Your task to perform on an android device: turn on location history Image 0: 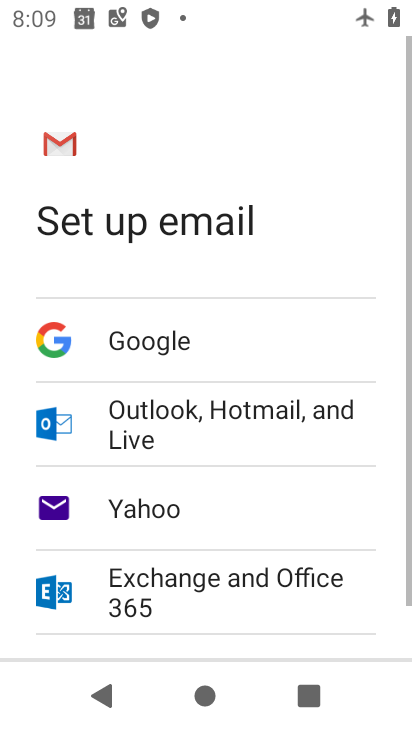
Step 0: press home button
Your task to perform on an android device: turn on location history Image 1: 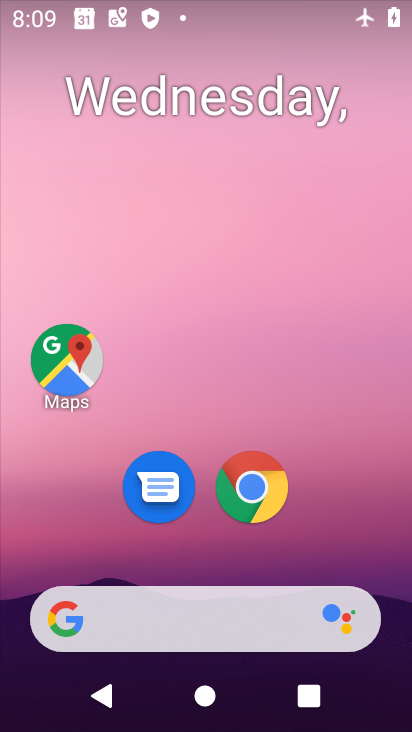
Step 1: drag from (377, 564) to (372, 315)
Your task to perform on an android device: turn on location history Image 2: 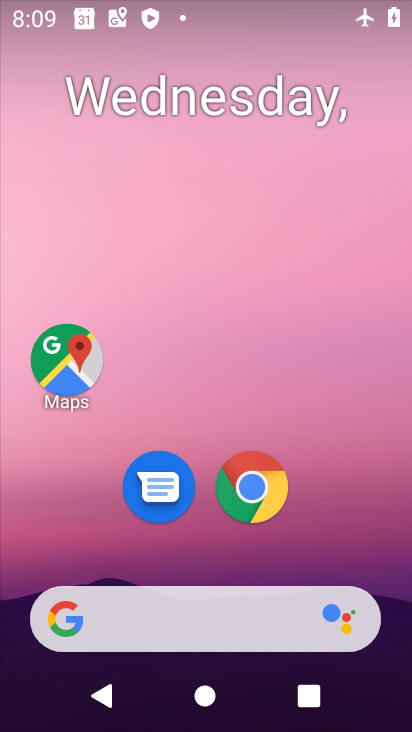
Step 2: drag from (353, 508) to (353, 169)
Your task to perform on an android device: turn on location history Image 3: 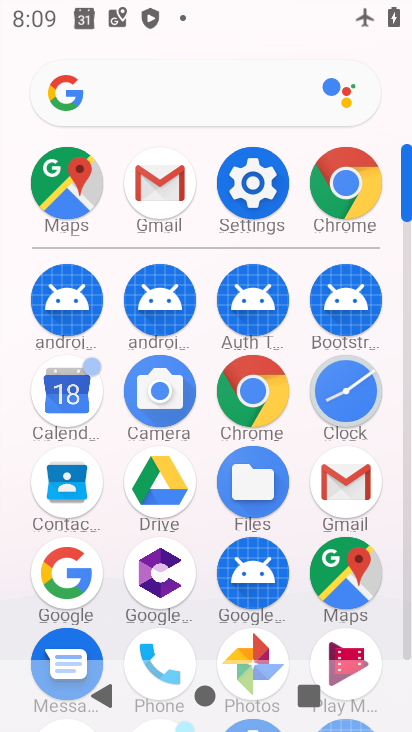
Step 3: click (274, 206)
Your task to perform on an android device: turn on location history Image 4: 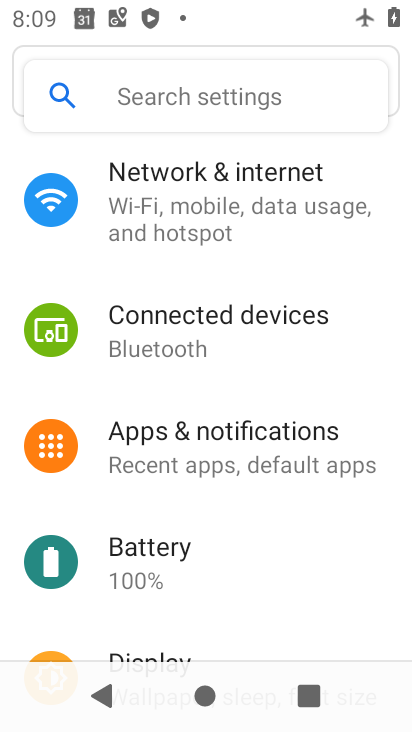
Step 4: drag from (334, 554) to (337, 423)
Your task to perform on an android device: turn on location history Image 5: 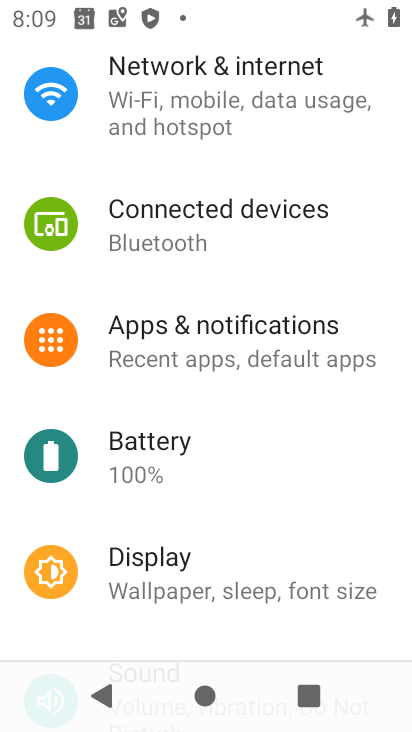
Step 5: drag from (346, 550) to (346, 441)
Your task to perform on an android device: turn on location history Image 6: 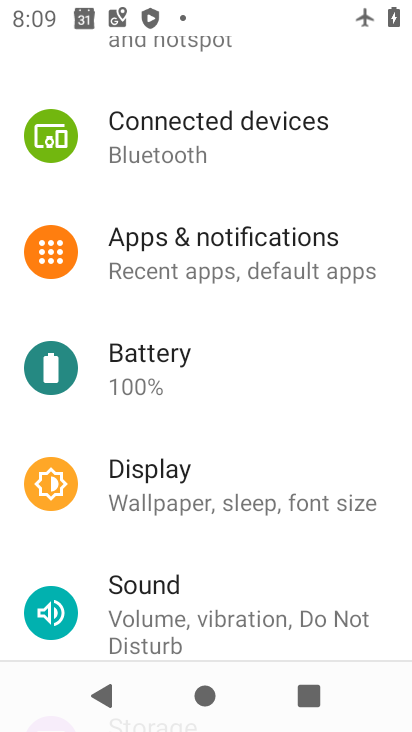
Step 6: drag from (349, 581) to (350, 493)
Your task to perform on an android device: turn on location history Image 7: 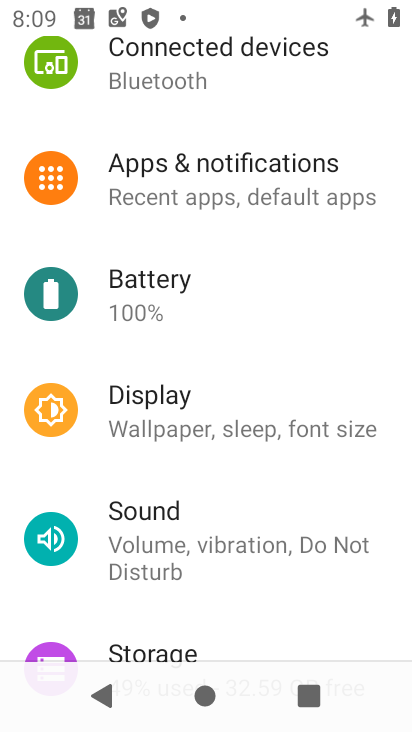
Step 7: drag from (365, 606) to (363, 540)
Your task to perform on an android device: turn on location history Image 8: 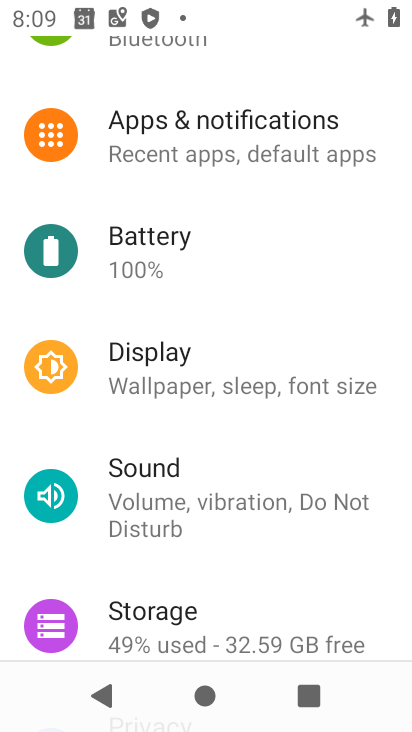
Step 8: drag from (372, 589) to (373, 516)
Your task to perform on an android device: turn on location history Image 9: 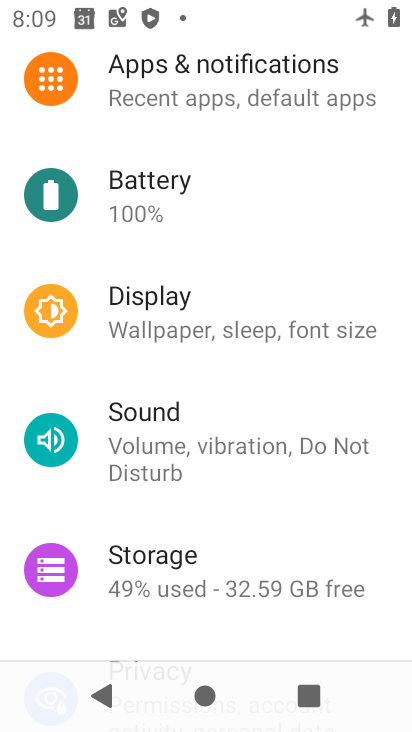
Step 9: drag from (375, 578) to (382, 491)
Your task to perform on an android device: turn on location history Image 10: 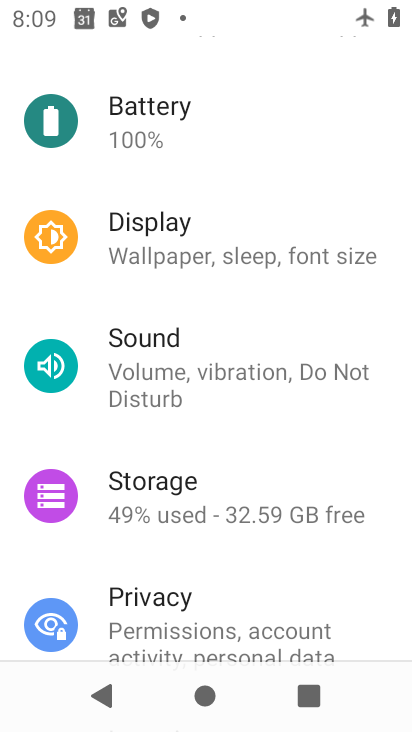
Step 10: drag from (382, 511) to (387, 430)
Your task to perform on an android device: turn on location history Image 11: 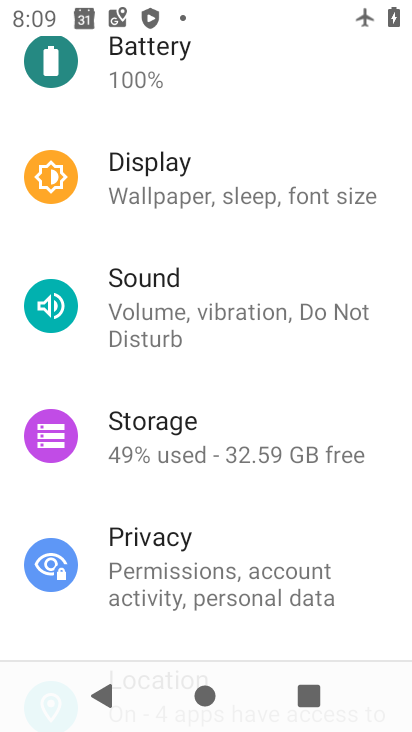
Step 11: drag from (382, 508) to (378, 419)
Your task to perform on an android device: turn on location history Image 12: 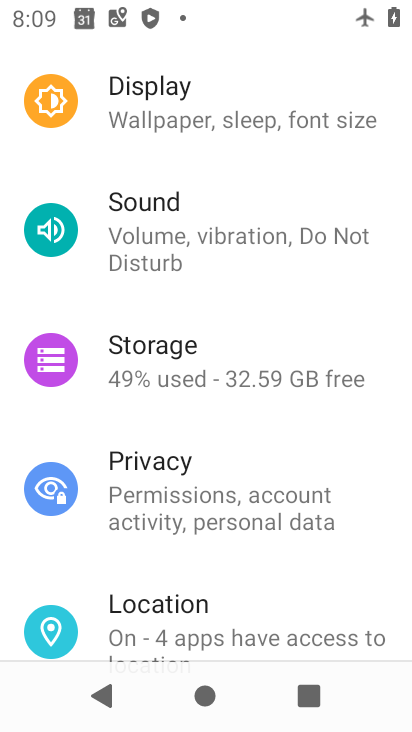
Step 12: drag from (364, 580) to (366, 473)
Your task to perform on an android device: turn on location history Image 13: 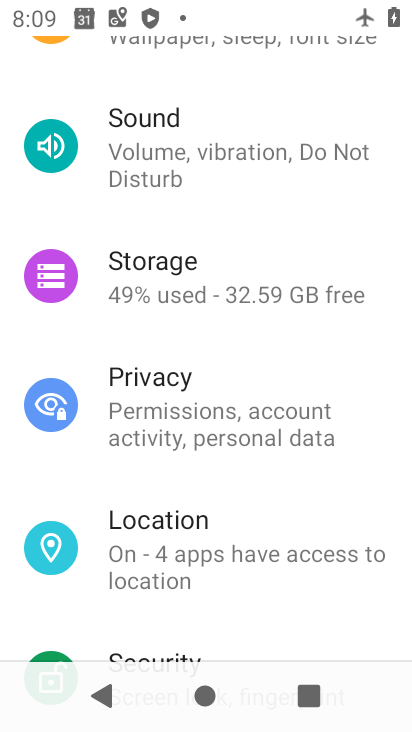
Step 13: click (313, 566)
Your task to perform on an android device: turn on location history Image 14: 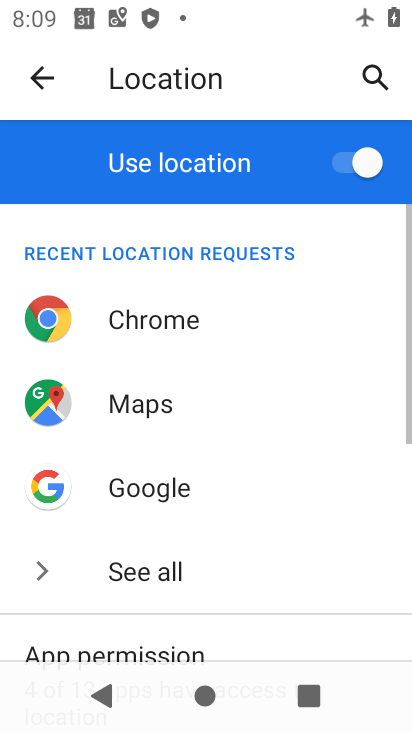
Step 14: drag from (313, 566) to (312, 463)
Your task to perform on an android device: turn on location history Image 15: 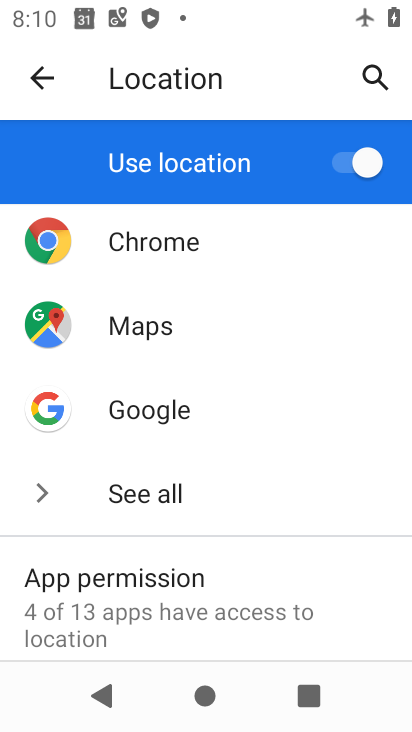
Step 15: drag from (324, 615) to (326, 521)
Your task to perform on an android device: turn on location history Image 16: 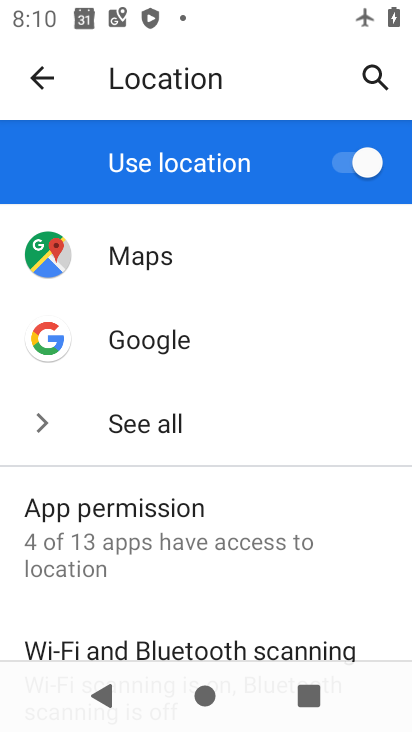
Step 16: drag from (342, 608) to (340, 528)
Your task to perform on an android device: turn on location history Image 17: 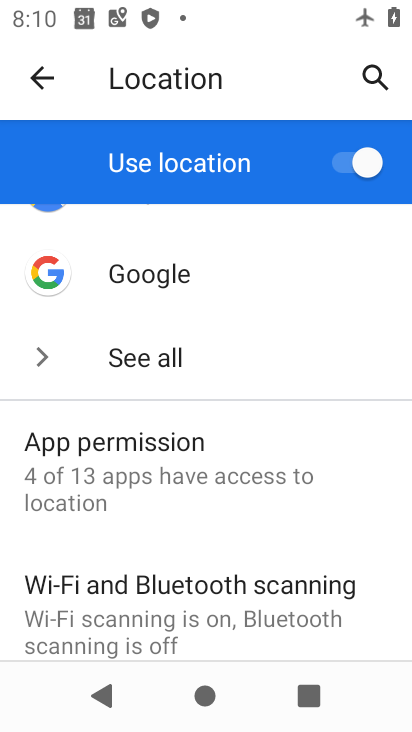
Step 17: drag from (354, 635) to (350, 550)
Your task to perform on an android device: turn on location history Image 18: 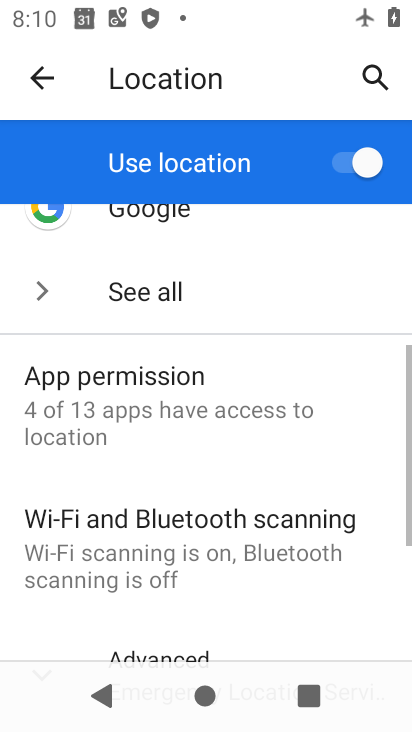
Step 18: drag from (354, 626) to (350, 513)
Your task to perform on an android device: turn on location history Image 19: 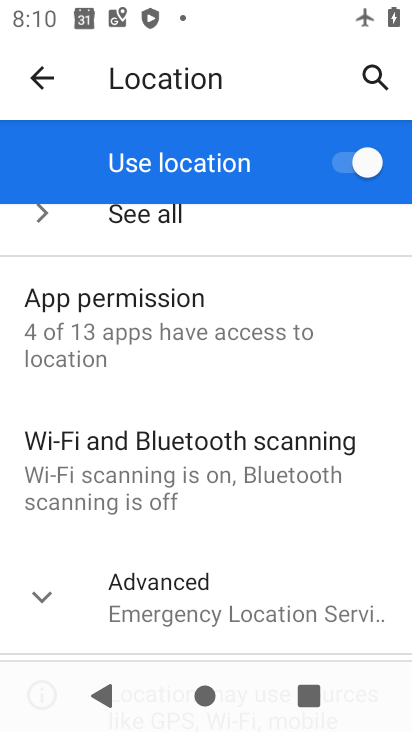
Step 19: drag from (357, 632) to (354, 508)
Your task to perform on an android device: turn on location history Image 20: 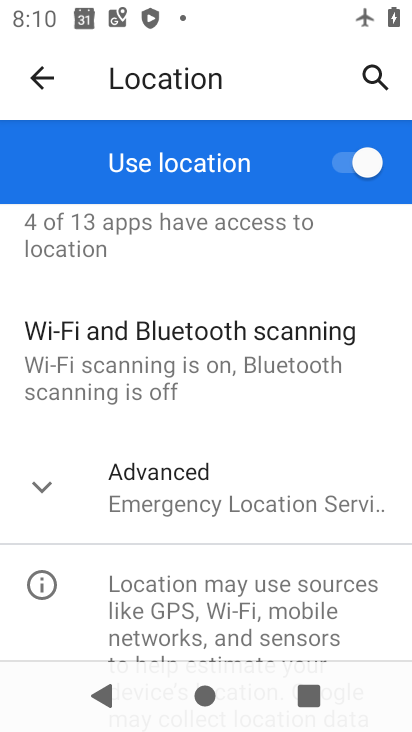
Step 20: click (303, 514)
Your task to perform on an android device: turn on location history Image 21: 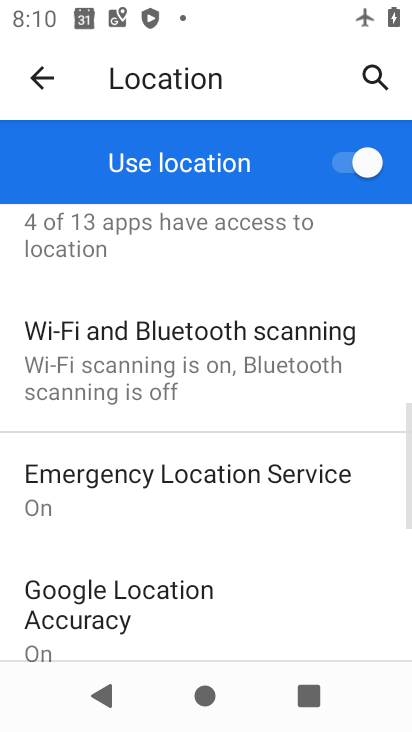
Step 21: drag from (305, 608) to (315, 488)
Your task to perform on an android device: turn on location history Image 22: 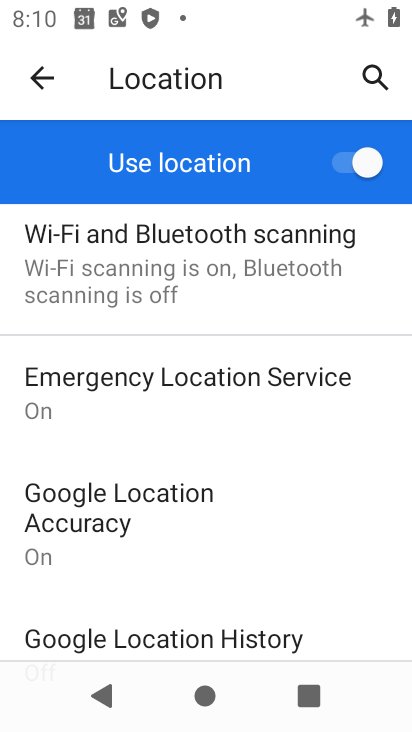
Step 22: drag from (335, 588) to (335, 492)
Your task to perform on an android device: turn on location history Image 23: 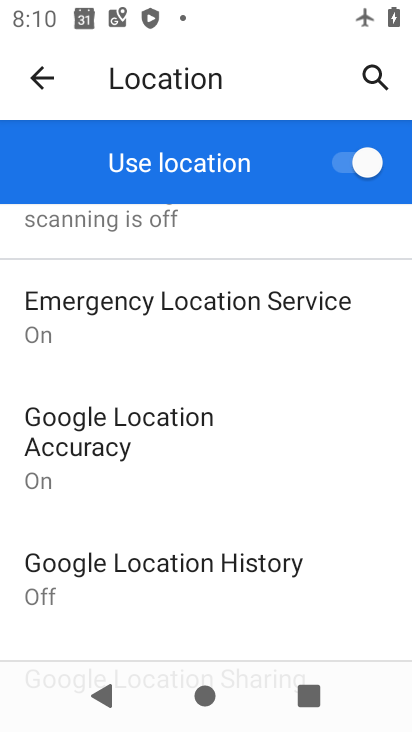
Step 23: drag from (343, 628) to (341, 504)
Your task to perform on an android device: turn on location history Image 24: 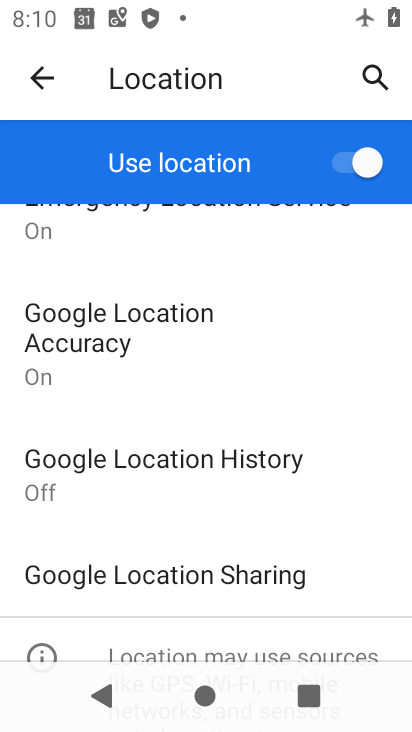
Step 24: click (246, 500)
Your task to perform on an android device: turn on location history Image 25: 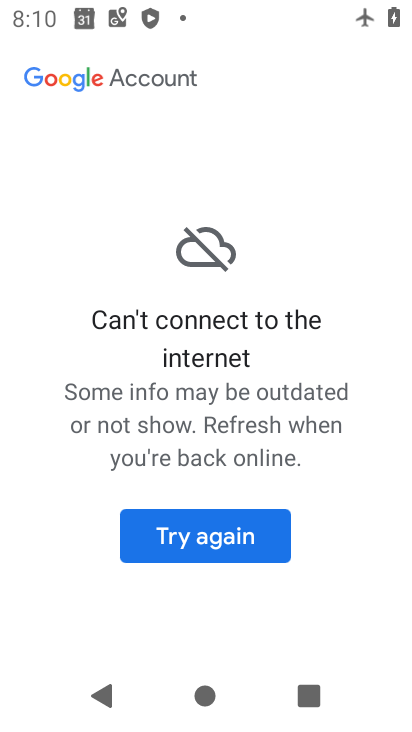
Step 25: task complete